Your task to perform on an android device: turn on location history Image 0: 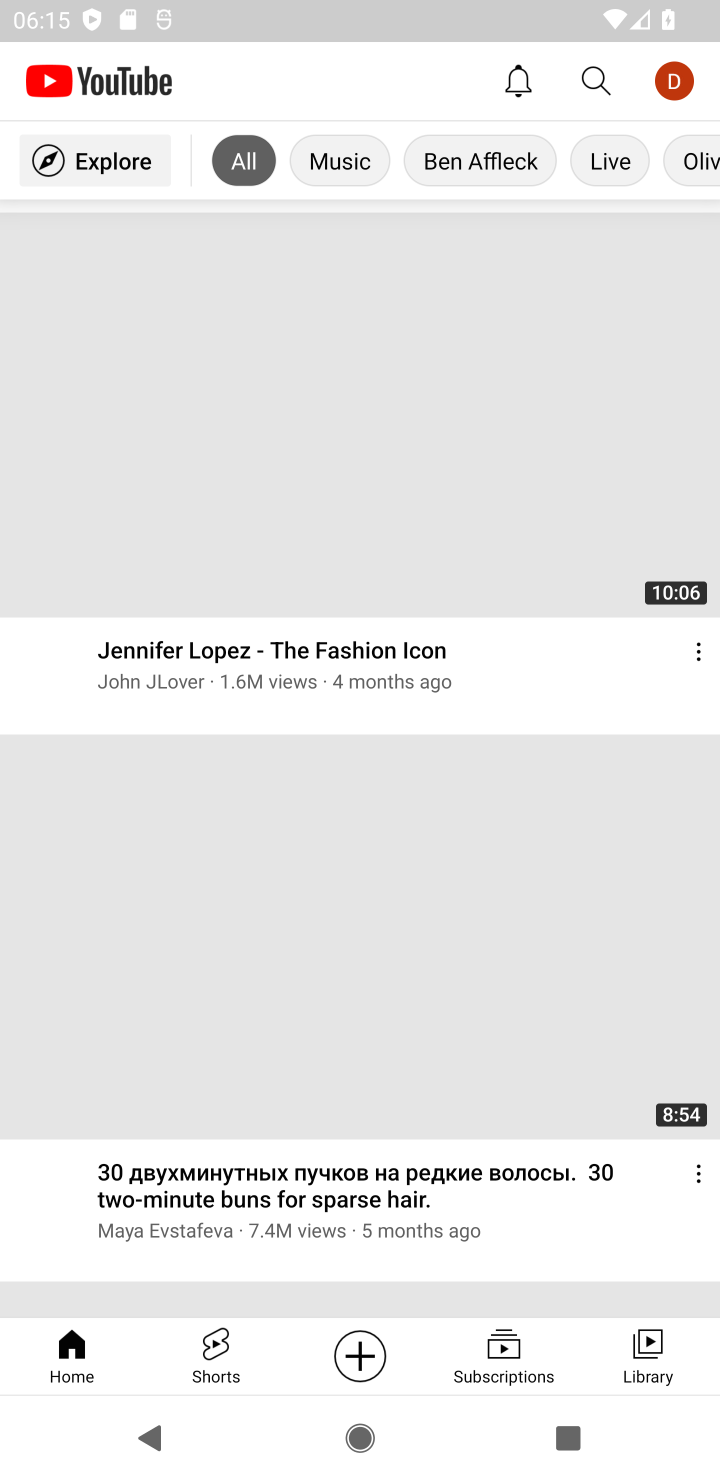
Step 0: press home button
Your task to perform on an android device: turn on location history Image 1: 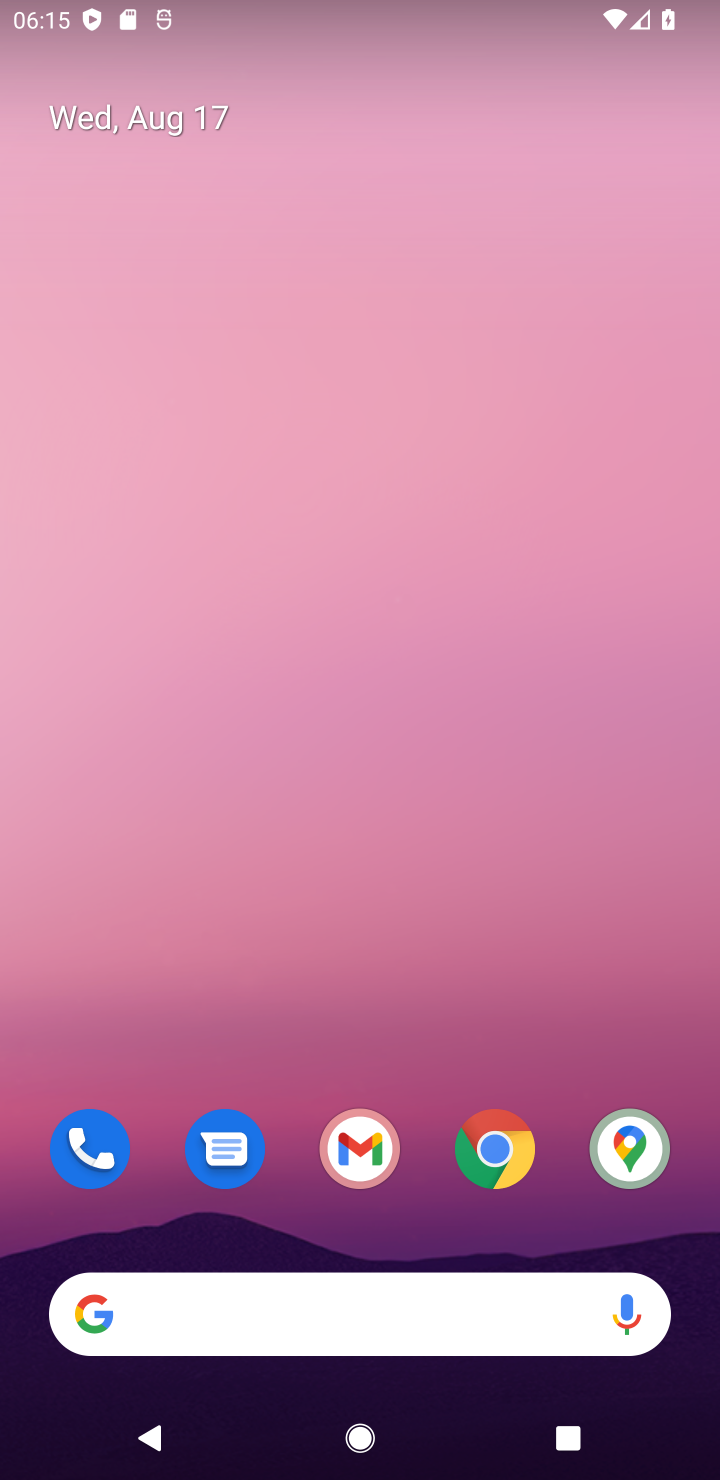
Step 1: drag from (458, 1068) to (431, 0)
Your task to perform on an android device: turn on location history Image 2: 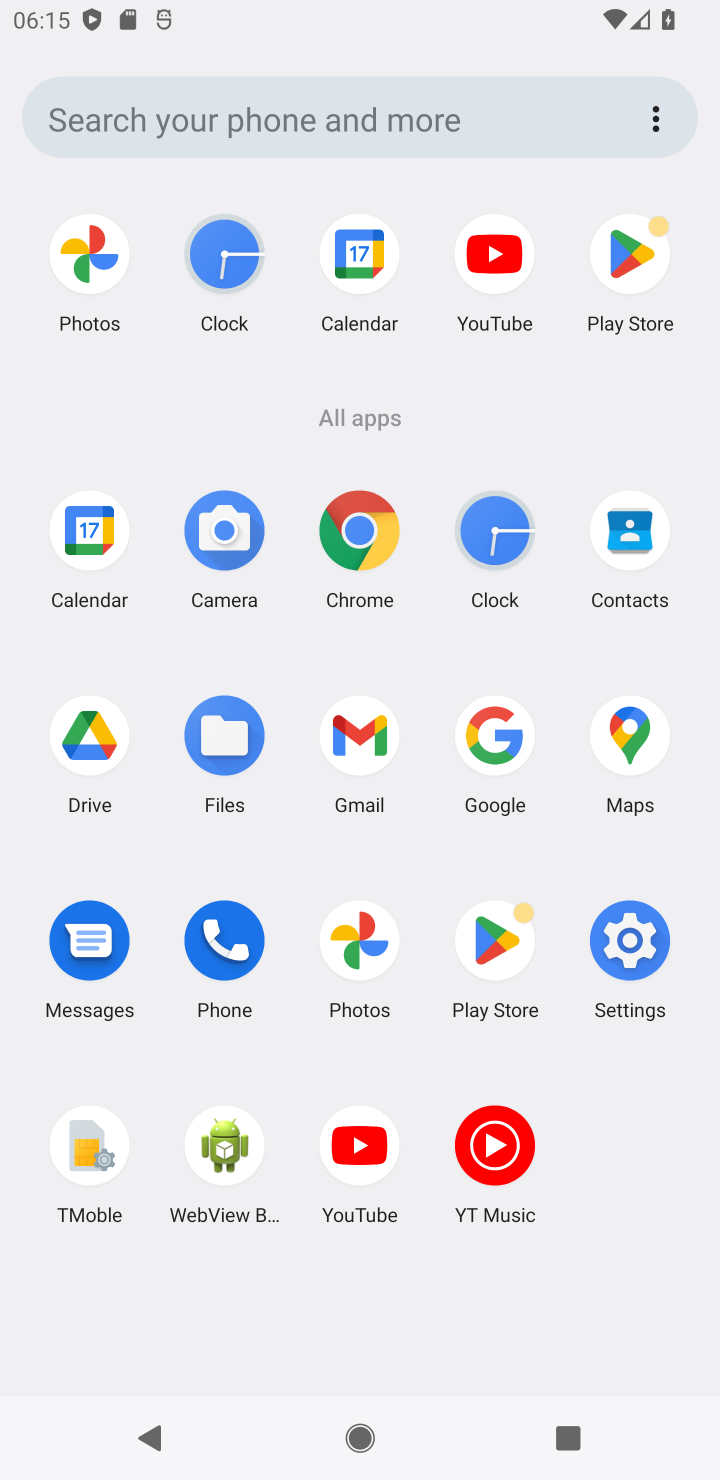
Step 2: click (632, 941)
Your task to perform on an android device: turn on location history Image 3: 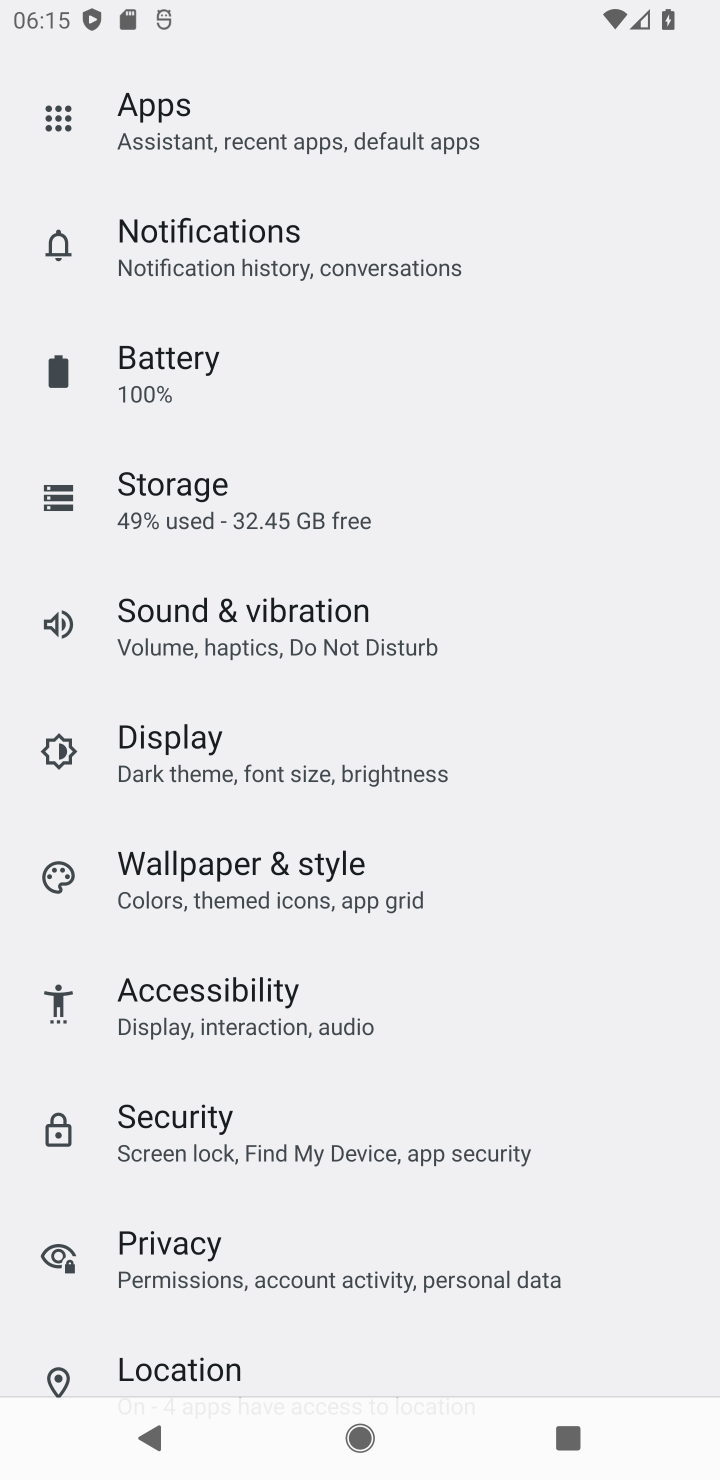
Step 3: click (184, 1361)
Your task to perform on an android device: turn on location history Image 4: 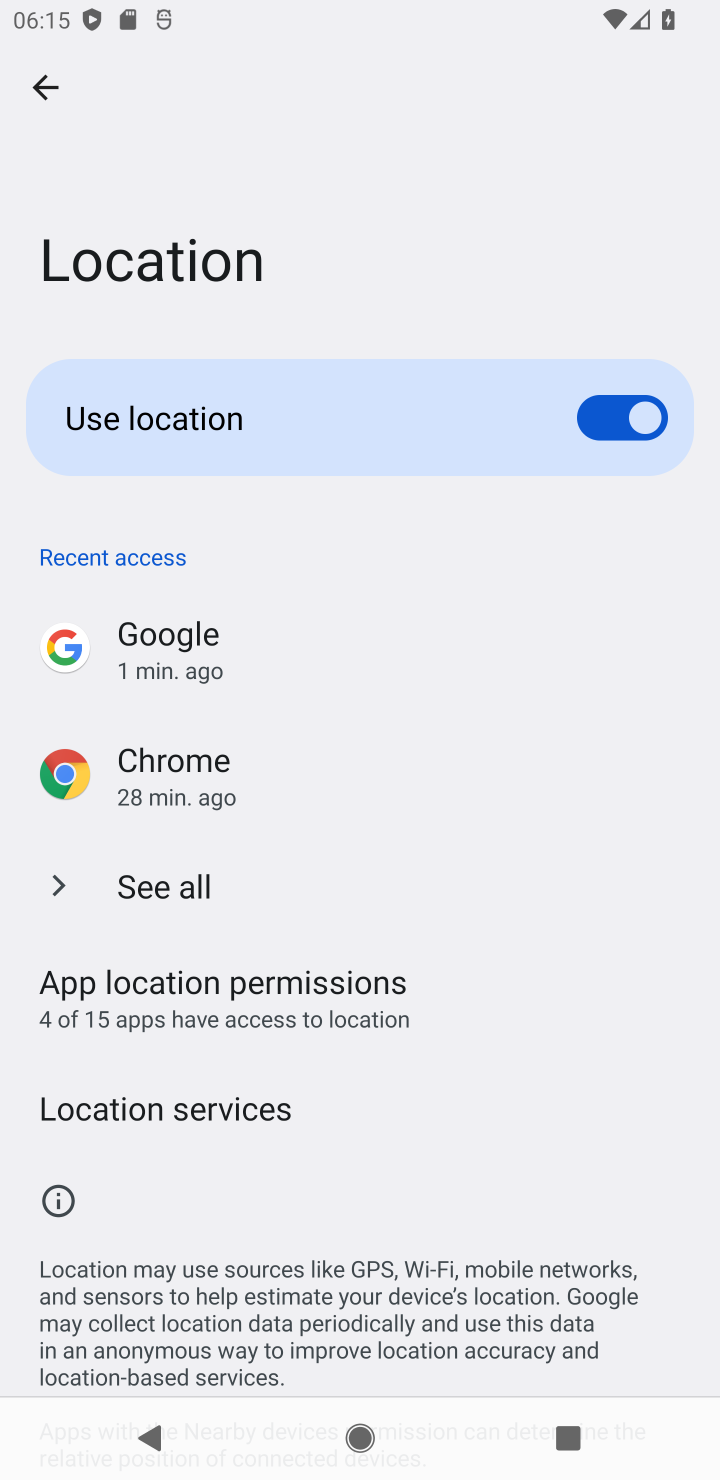
Step 4: click (242, 1103)
Your task to perform on an android device: turn on location history Image 5: 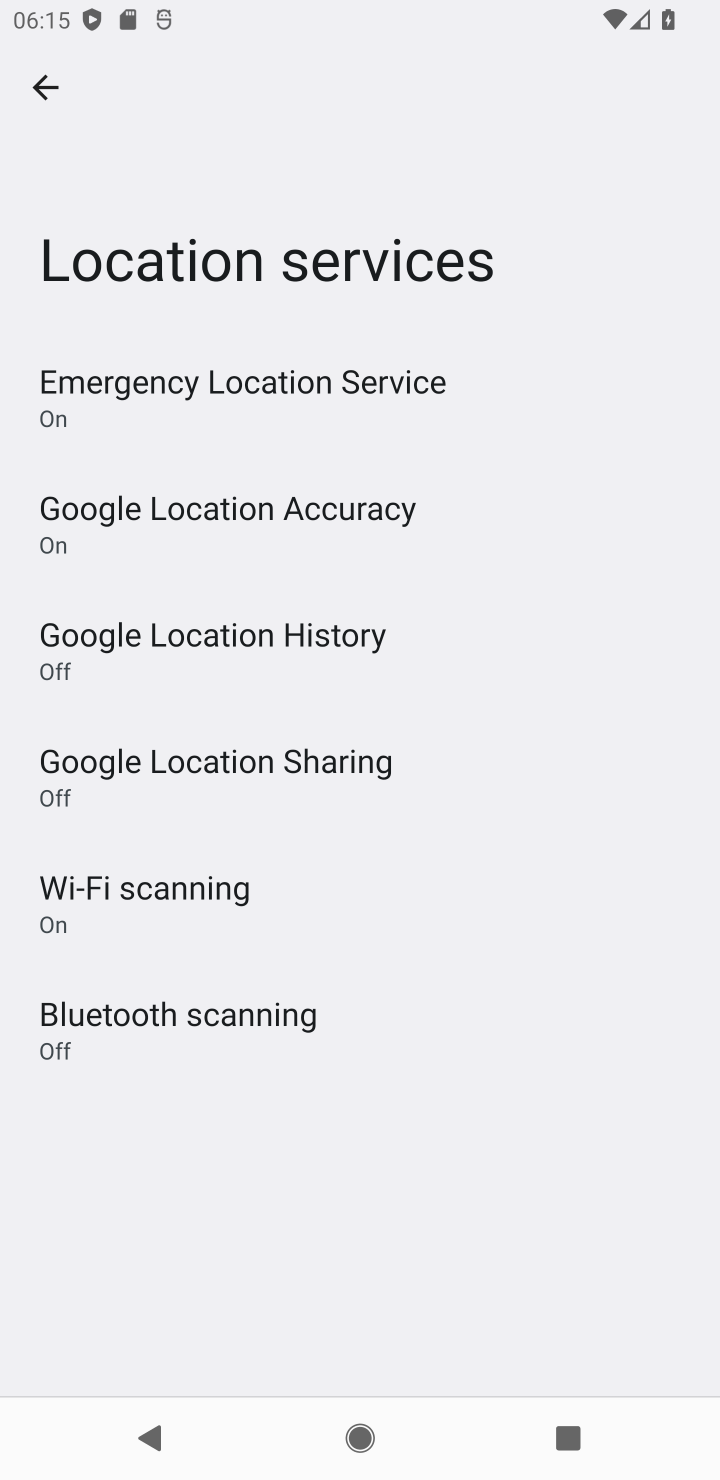
Step 5: click (221, 638)
Your task to perform on an android device: turn on location history Image 6: 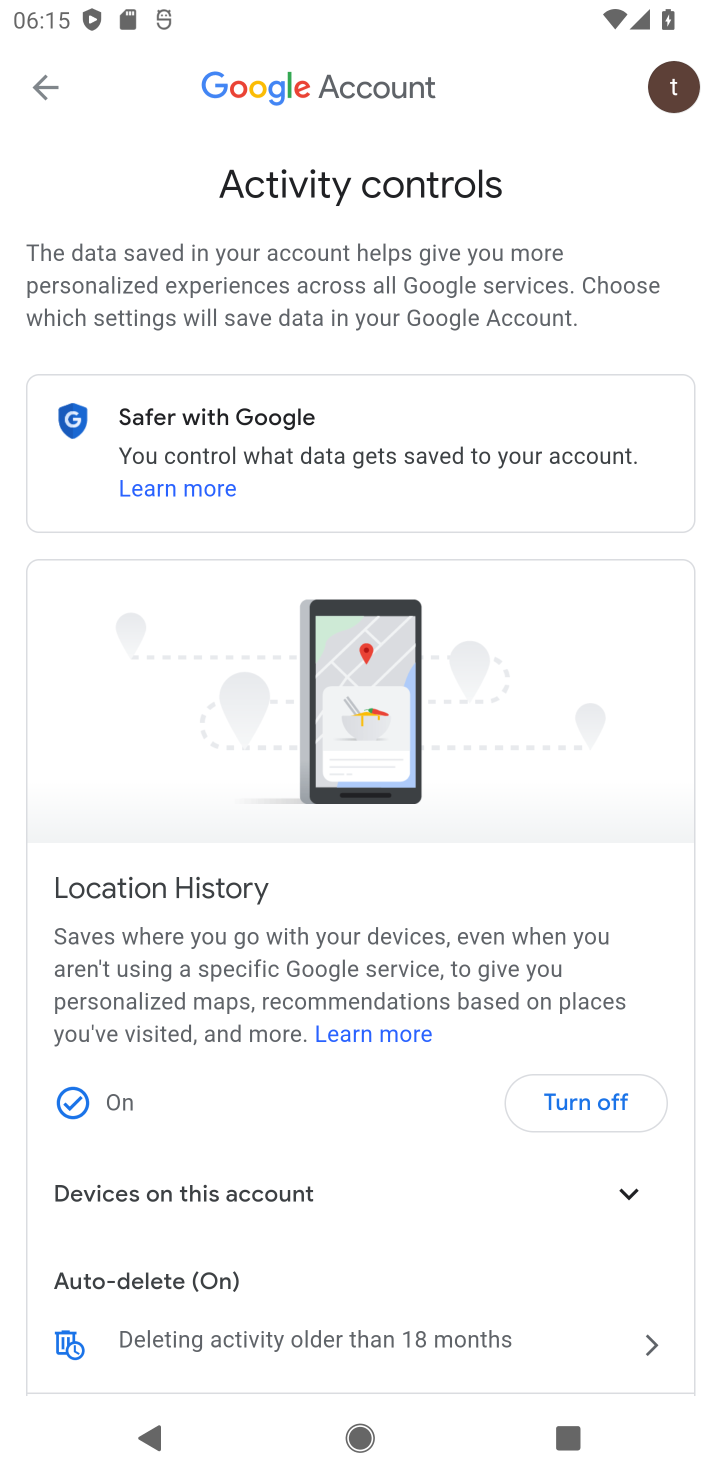
Step 6: task complete